Your task to perform on an android device: Search for the best selling coffee table on Crate & Barrel Image 0: 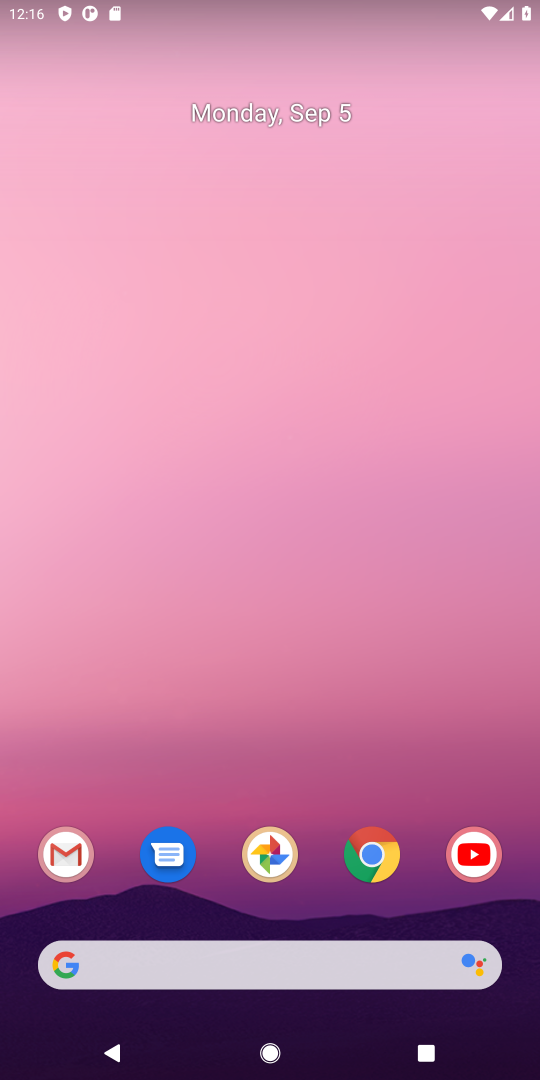
Step 0: click (380, 862)
Your task to perform on an android device: Search for the best selling coffee table on Crate & Barrel Image 1: 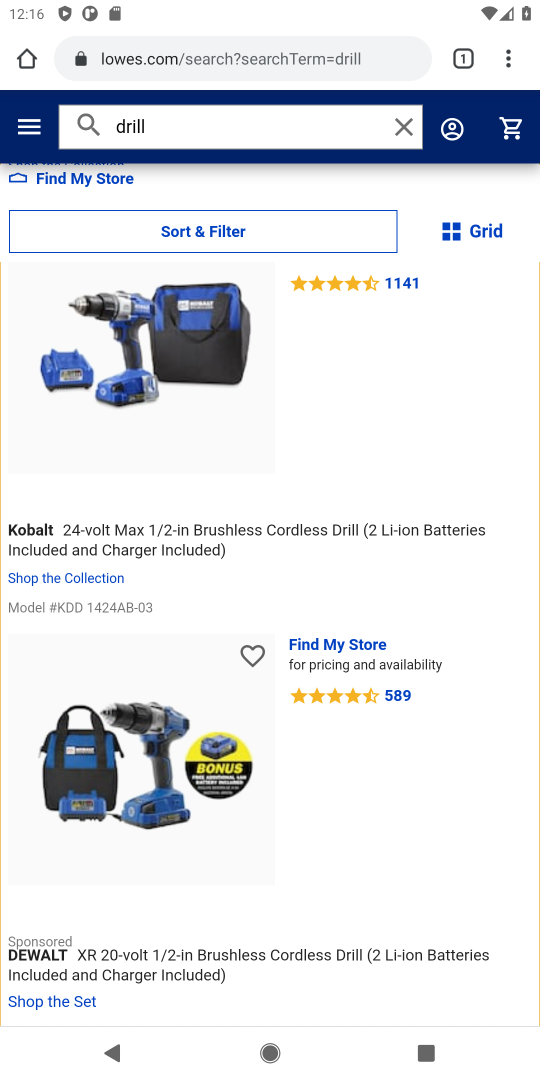
Step 1: click (292, 59)
Your task to perform on an android device: Search for the best selling coffee table on Crate & Barrel Image 2: 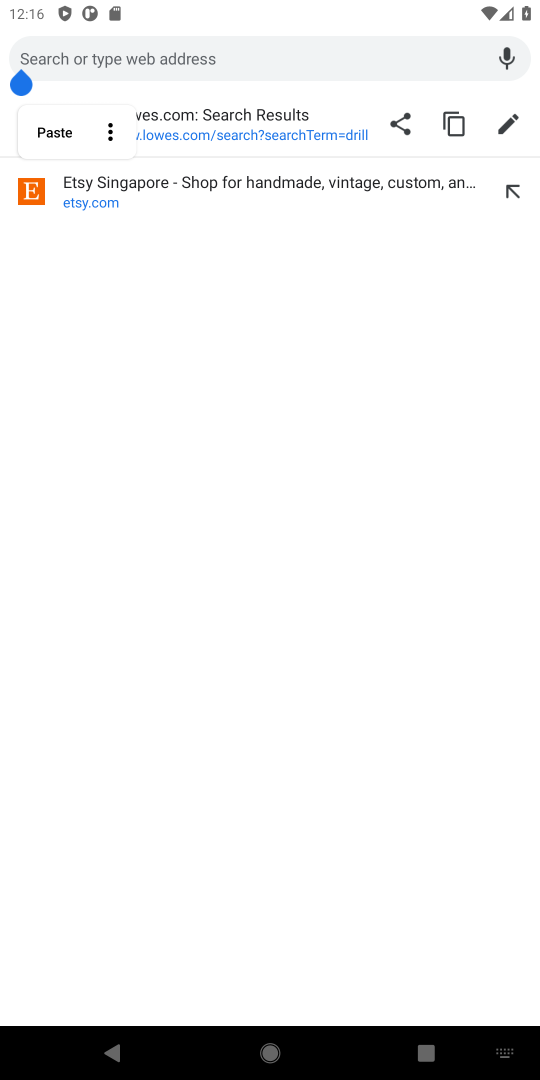
Step 2: click (292, 62)
Your task to perform on an android device: Search for the best selling coffee table on Crate & Barrel Image 3: 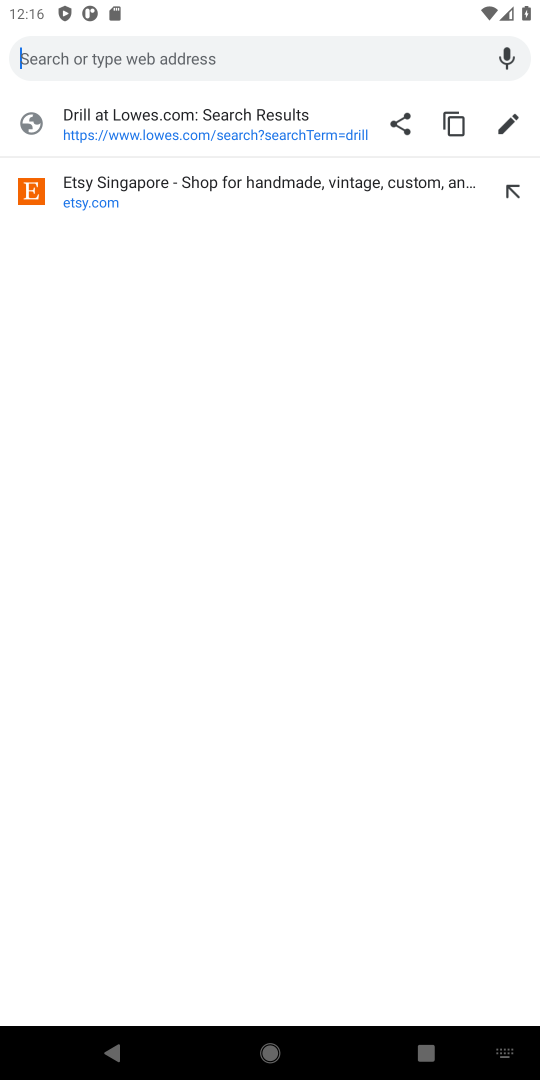
Step 3: type " Crate & Barrel"
Your task to perform on an android device: Search for the best selling coffee table on Crate & Barrel Image 4: 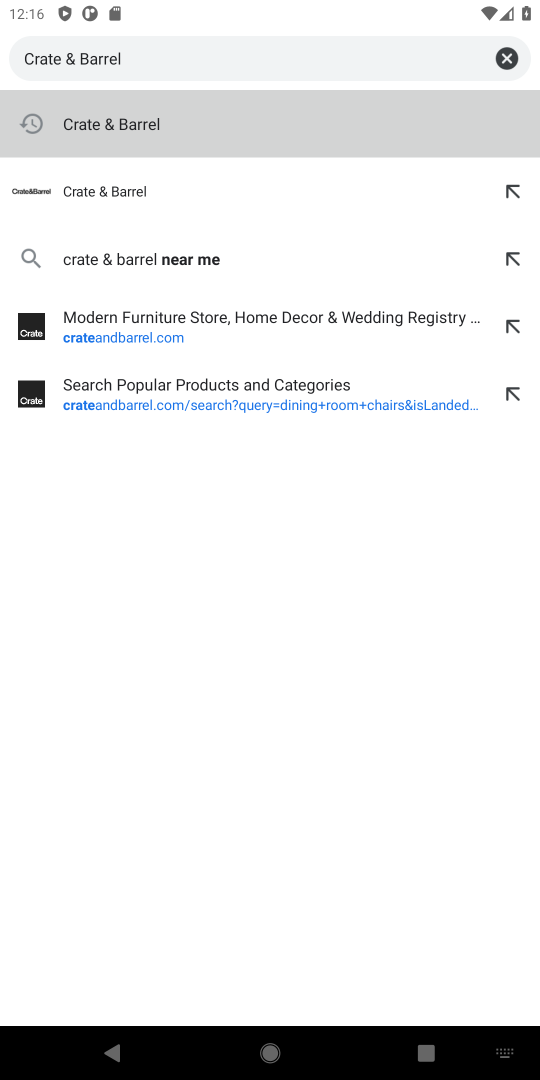
Step 4: press enter
Your task to perform on an android device: Search for the best selling coffee table on Crate & Barrel Image 5: 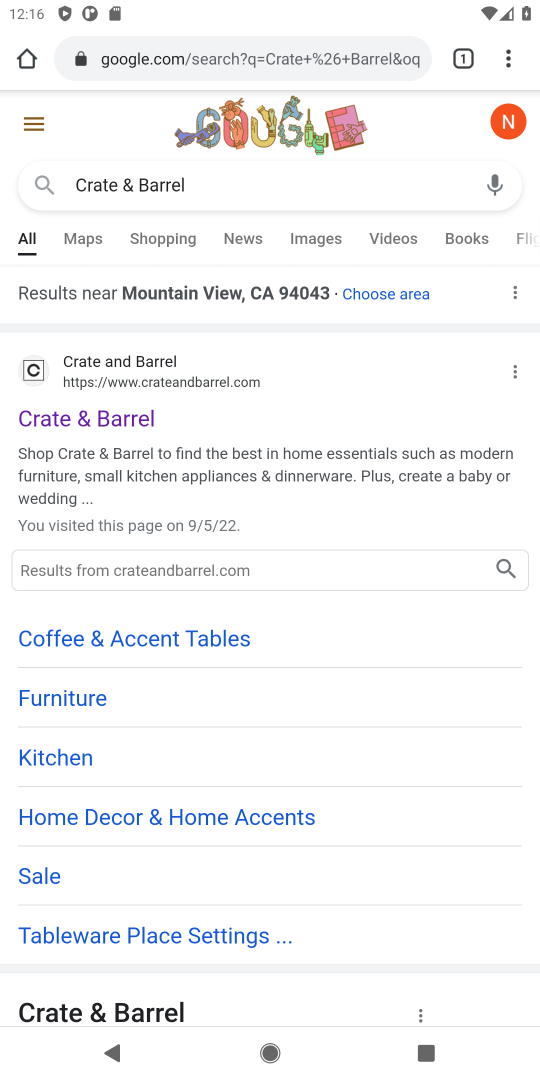
Step 5: click (124, 417)
Your task to perform on an android device: Search for the best selling coffee table on Crate & Barrel Image 6: 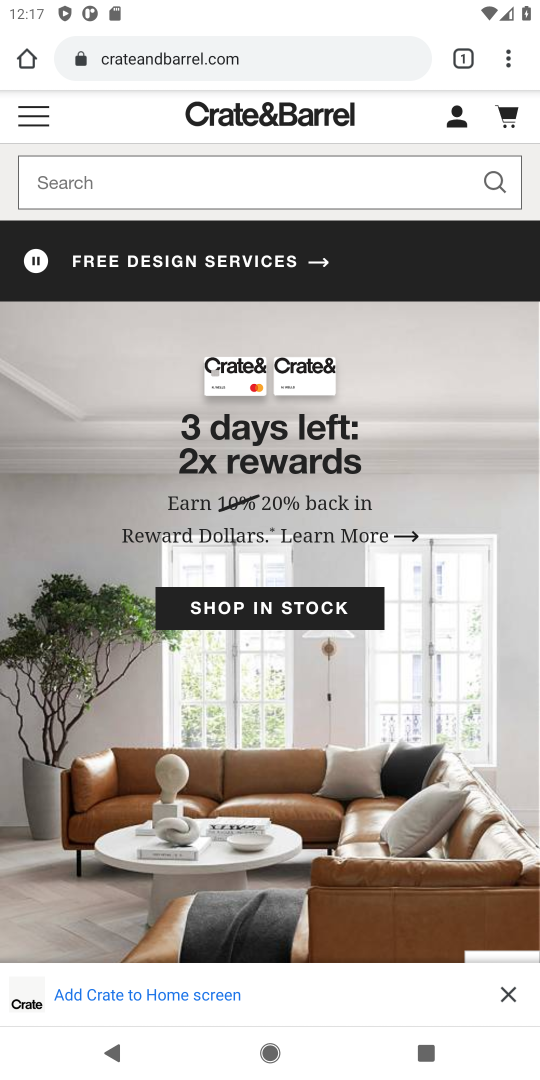
Step 6: click (180, 181)
Your task to perform on an android device: Search for the best selling coffee table on Crate & Barrel Image 7: 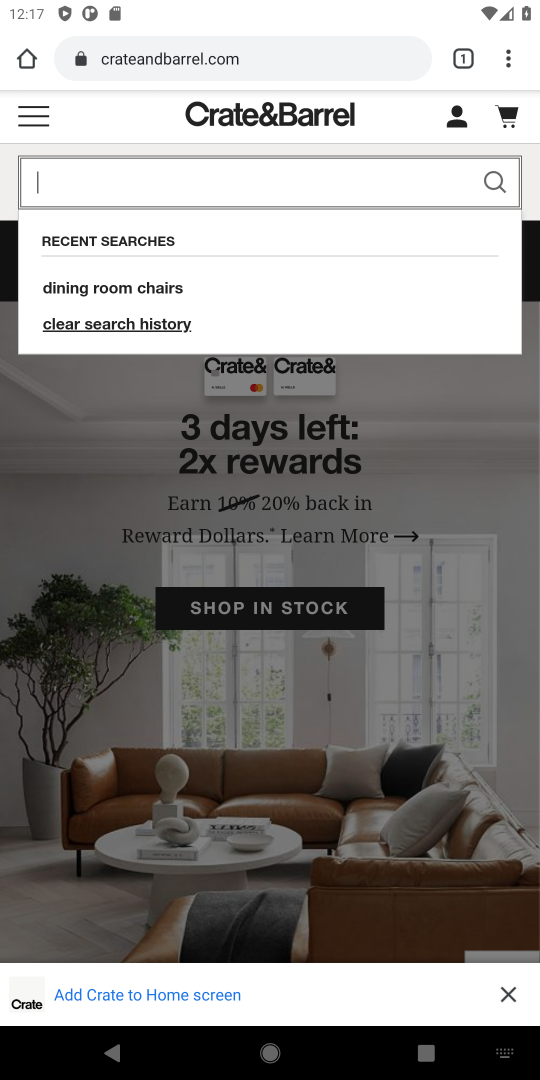
Step 7: click (158, 170)
Your task to perform on an android device: Search for the best selling coffee table on Crate & Barrel Image 8: 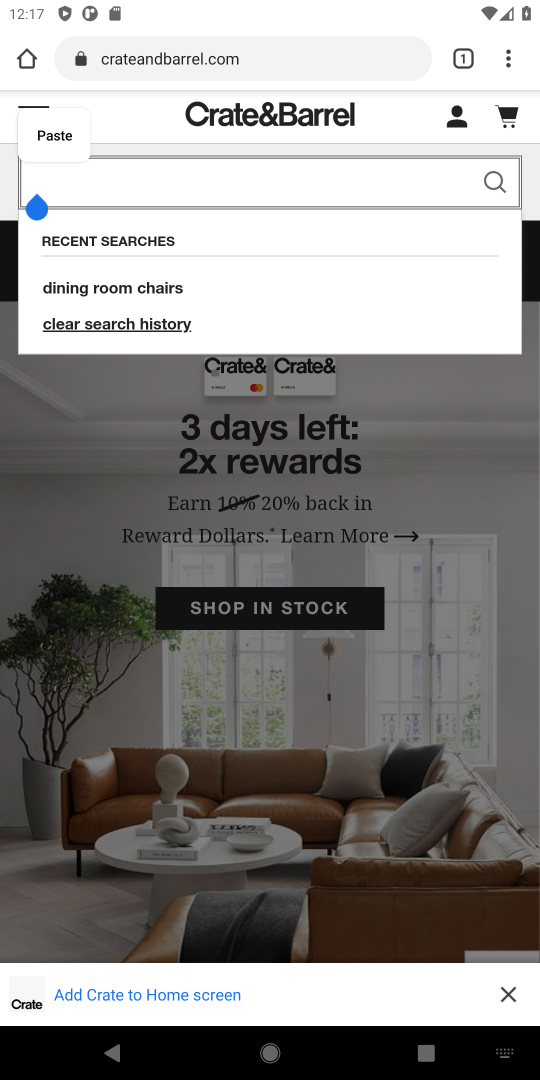
Step 8: type " coffee table"
Your task to perform on an android device: Search for the best selling coffee table on Crate & Barrel Image 9: 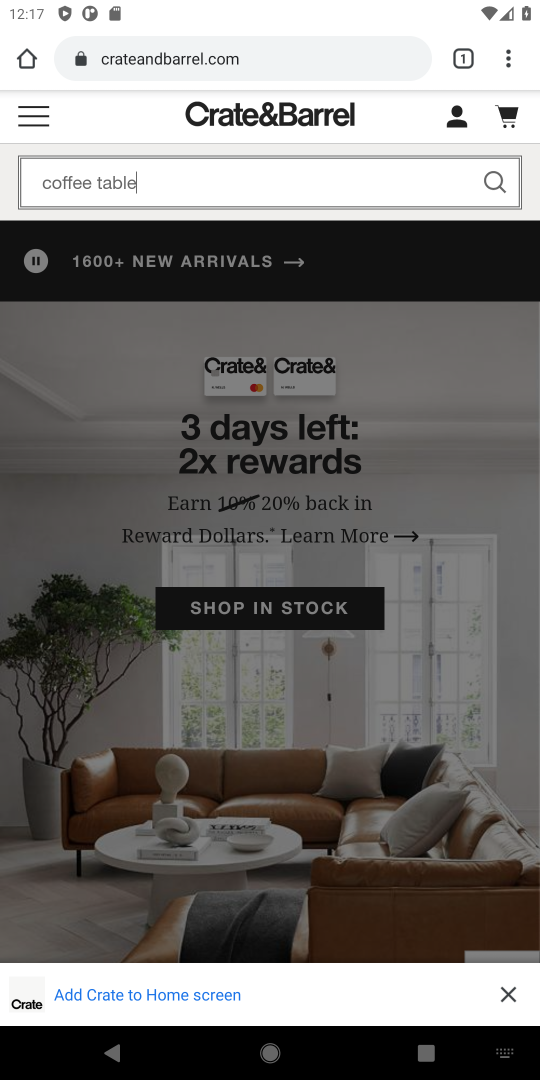
Step 9: press enter
Your task to perform on an android device: Search for the best selling coffee table on Crate & Barrel Image 10: 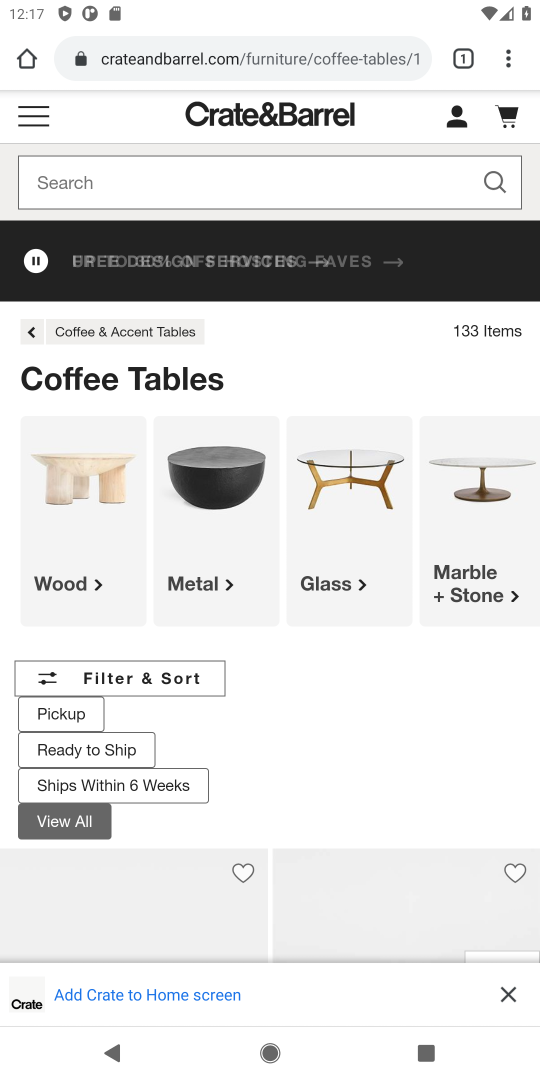
Step 10: task complete